Your task to perform on an android device: toggle sleep mode Image 0: 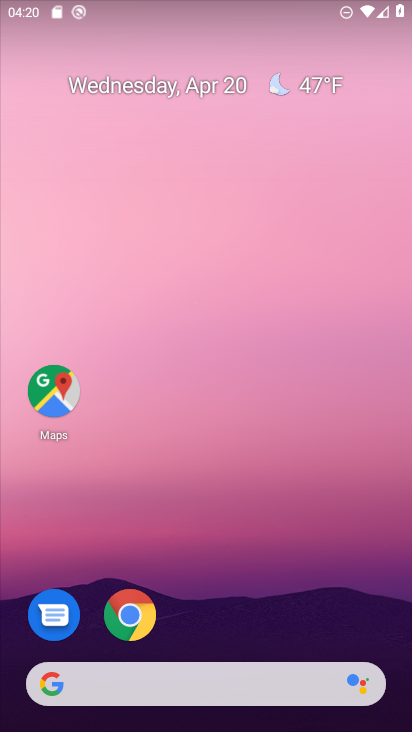
Step 0: drag from (201, 403) to (192, 86)
Your task to perform on an android device: toggle sleep mode Image 1: 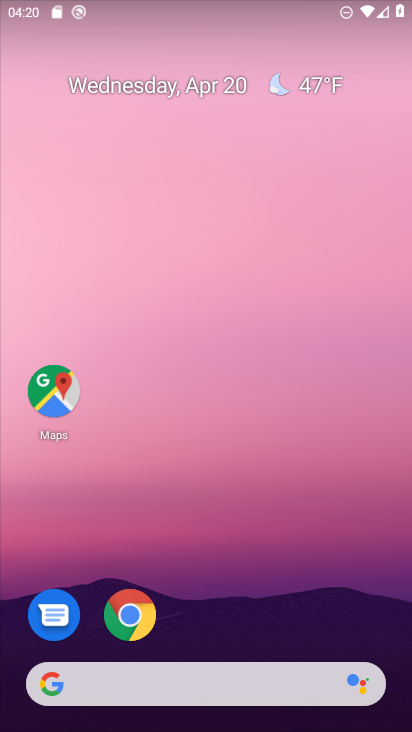
Step 1: drag from (200, 341) to (252, 71)
Your task to perform on an android device: toggle sleep mode Image 2: 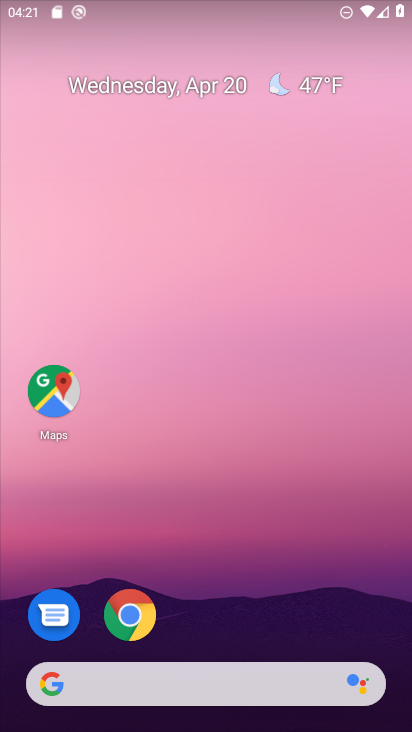
Step 2: drag from (266, 627) to (230, 96)
Your task to perform on an android device: toggle sleep mode Image 3: 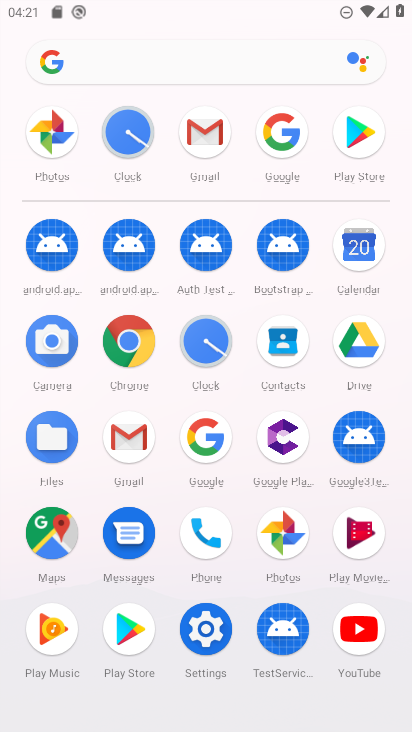
Step 3: click (191, 636)
Your task to perform on an android device: toggle sleep mode Image 4: 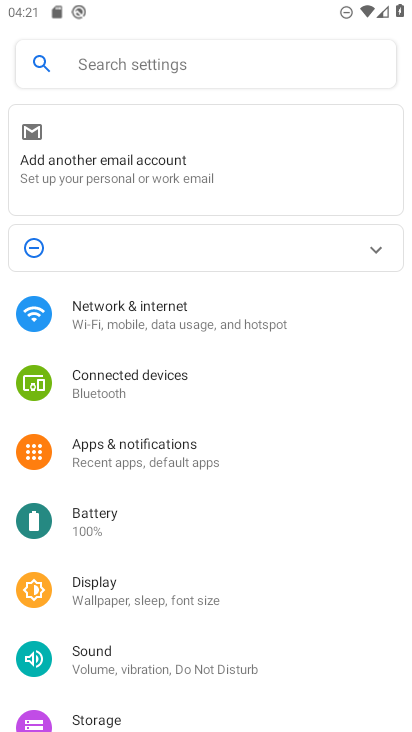
Step 4: drag from (212, 567) to (232, 216)
Your task to perform on an android device: toggle sleep mode Image 5: 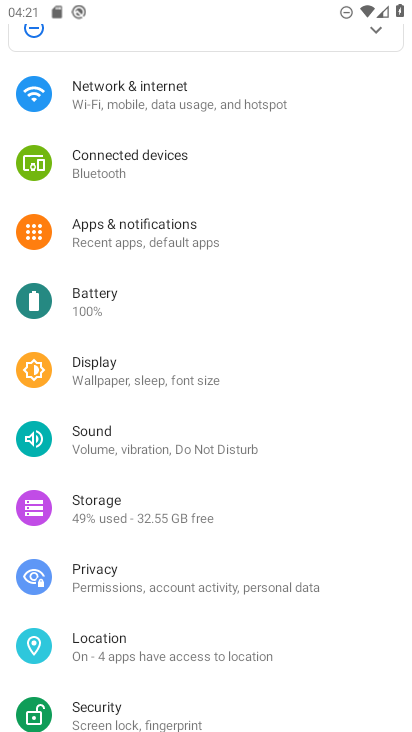
Step 5: click (211, 365)
Your task to perform on an android device: toggle sleep mode Image 6: 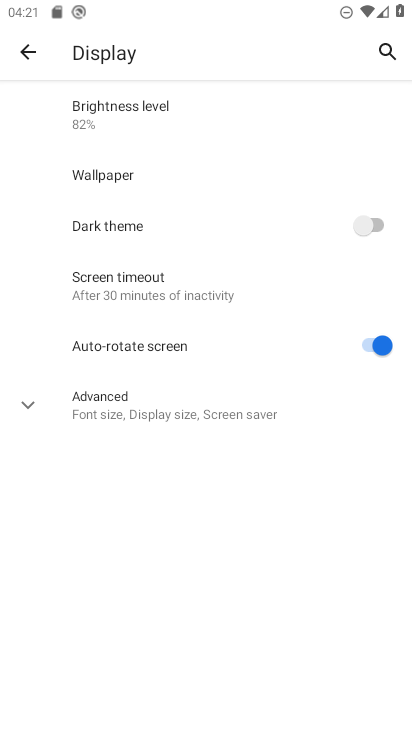
Step 6: click (217, 307)
Your task to perform on an android device: toggle sleep mode Image 7: 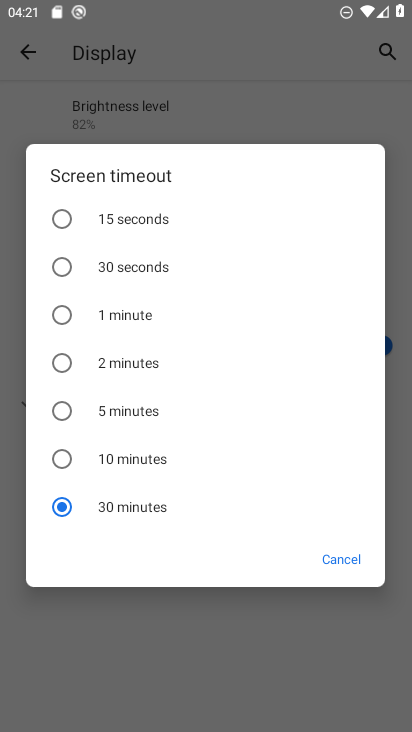
Step 7: click (165, 225)
Your task to perform on an android device: toggle sleep mode Image 8: 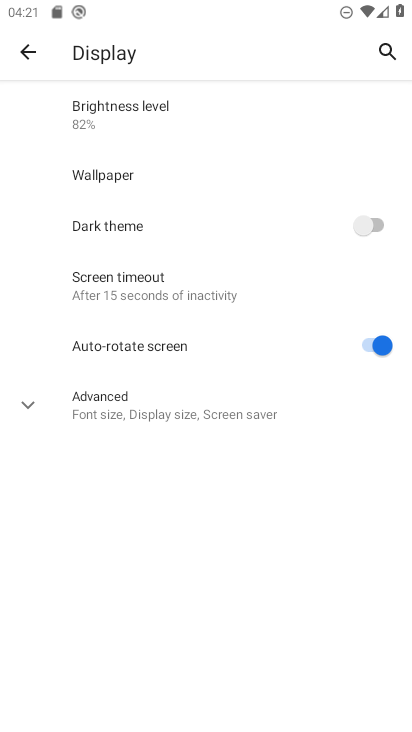
Step 8: task complete